Your task to perform on an android device: delete browsing data in the chrome app Image 0: 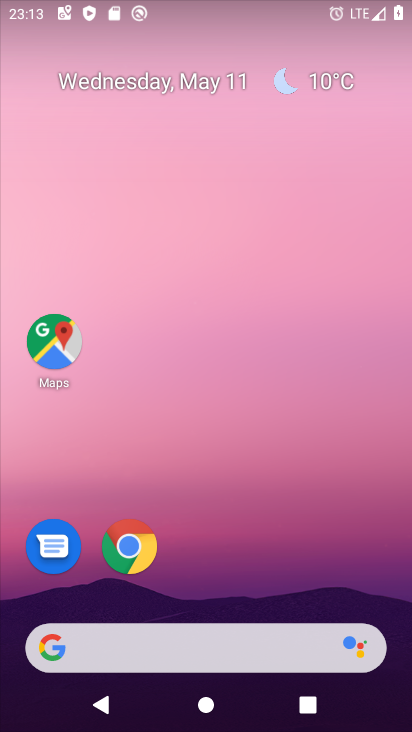
Step 0: click (129, 546)
Your task to perform on an android device: delete browsing data in the chrome app Image 1: 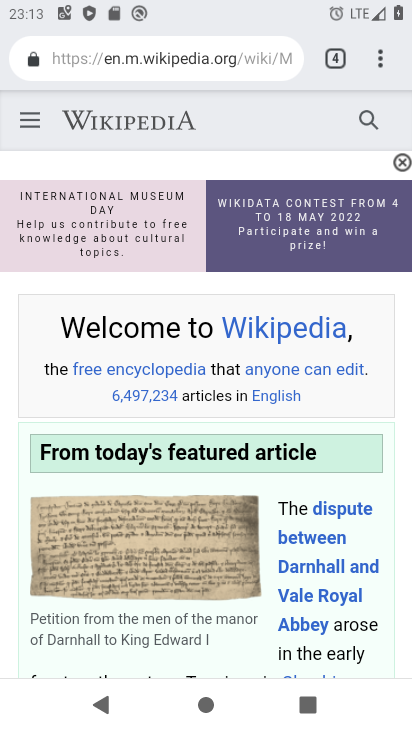
Step 1: click (379, 63)
Your task to perform on an android device: delete browsing data in the chrome app Image 2: 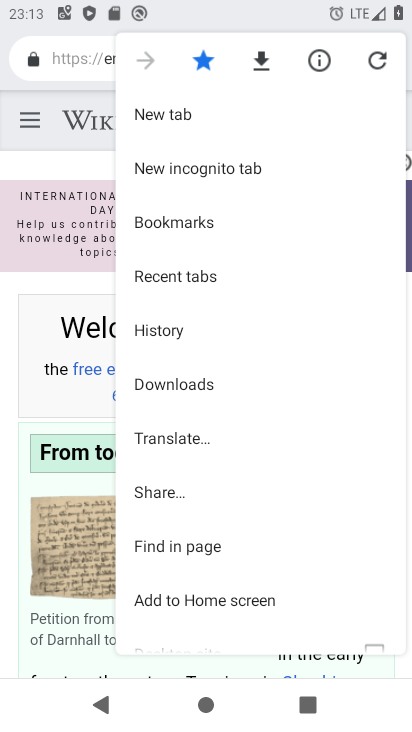
Step 2: click (159, 326)
Your task to perform on an android device: delete browsing data in the chrome app Image 3: 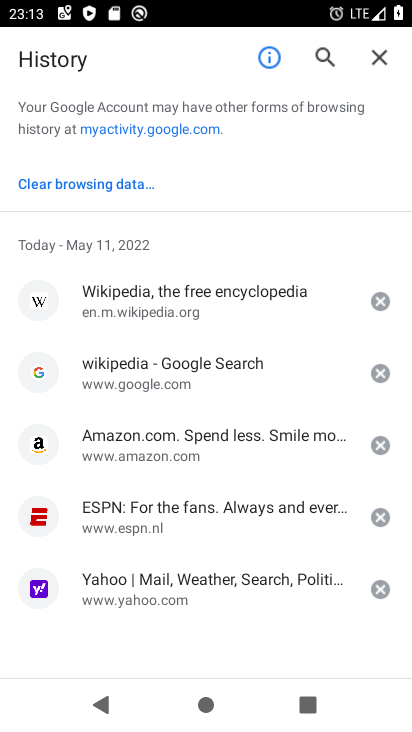
Step 3: click (79, 182)
Your task to perform on an android device: delete browsing data in the chrome app Image 4: 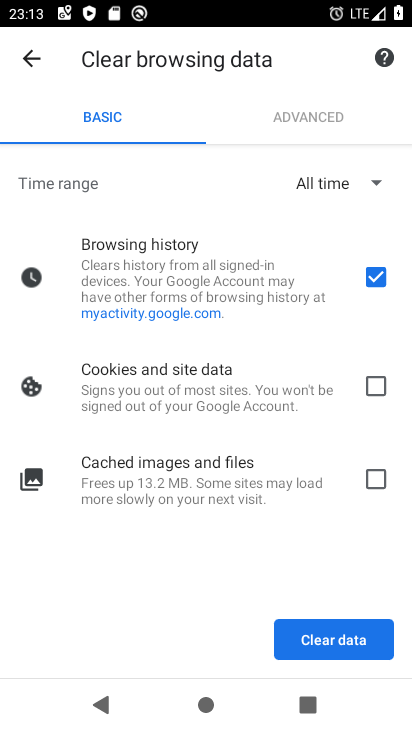
Step 4: click (338, 637)
Your task to perform on an android device: delete browsing data in the chrome app Image 5: 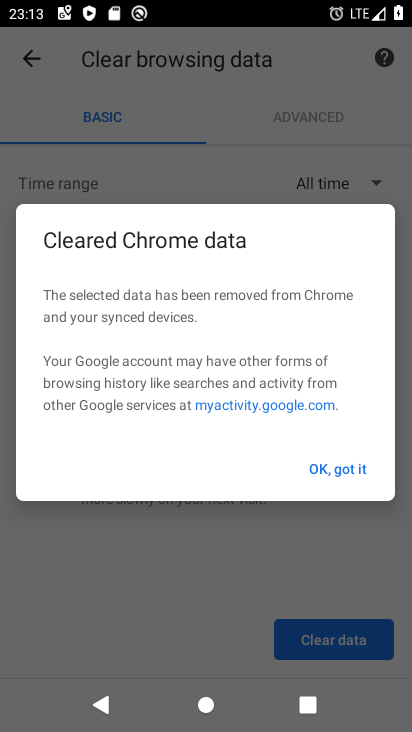
Step 5: click (341, 468)
Your task to perform on an android device: delete browsing data in the chrome app Image 6: 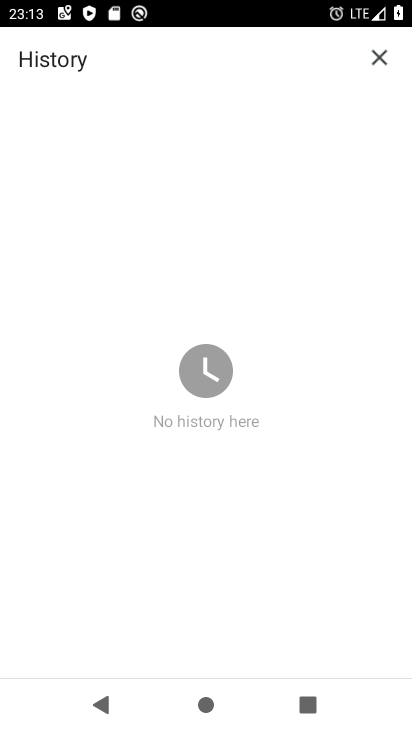
Step 6: task complete